Your task to perform on an android device: turn on the 12-hour format for clock Image 0: 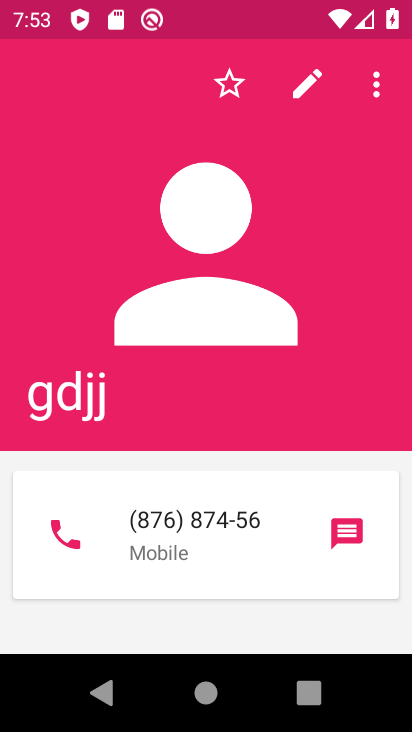
Step 0: press home button
Your task to perform on an android device: turn on the 12-hour format for clock Image 1: 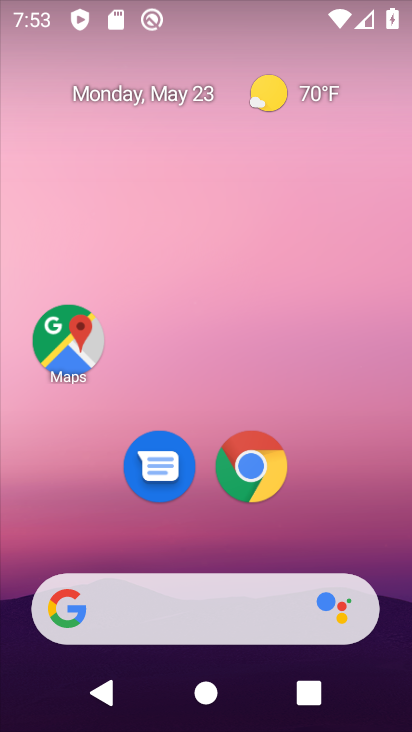
Step 1: drag from (156, 570) to (154, 23)
Your task to perform on an android device: turn on the 12-hour format for clock Image 2: 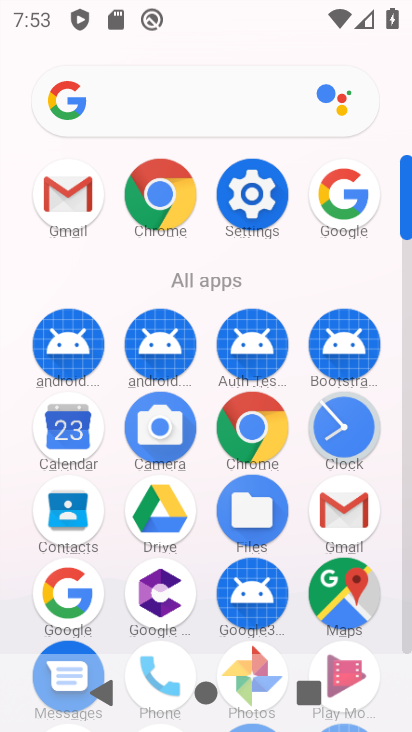
Step 2: click (353, 430)
Your task to perform on an android device: turn on the 12-hour format for clock Image 3: 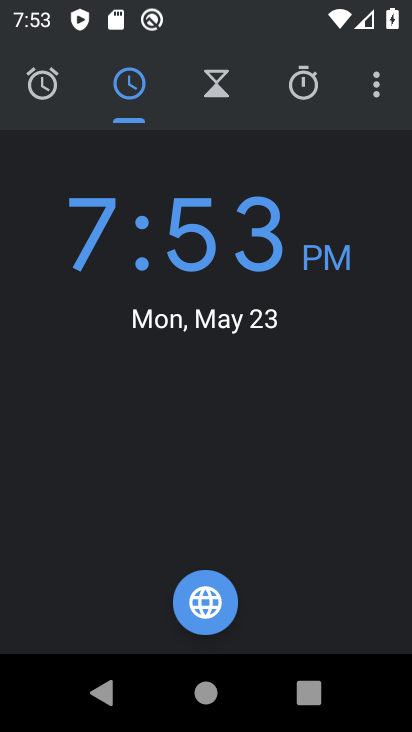
Step 3: click (378, 107)
Your task to perform on an android device: turn on the 12-hour format for clock Image 4: 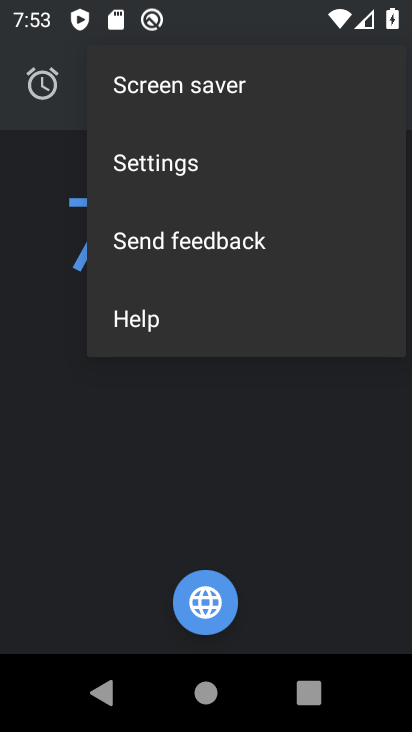
Step 4: click (209, 166)
Your task to perform on an android device: turn on the 12-hour format for clock Image 5: 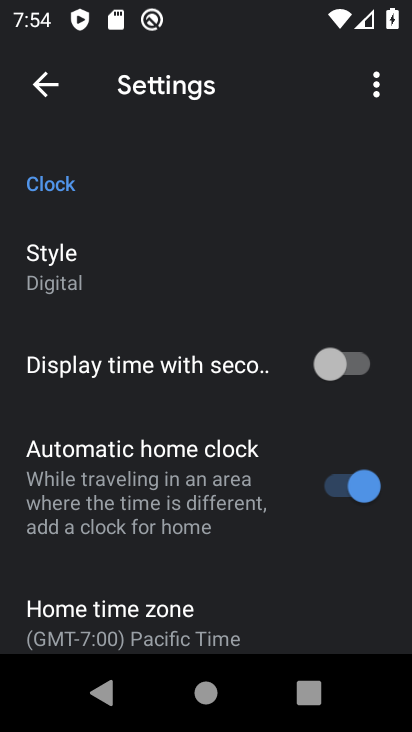
Step 5: drag from (173, 548) to (168, 230)
Your task to perform on an android device: turn on the 12-hour format for clock Image 6: 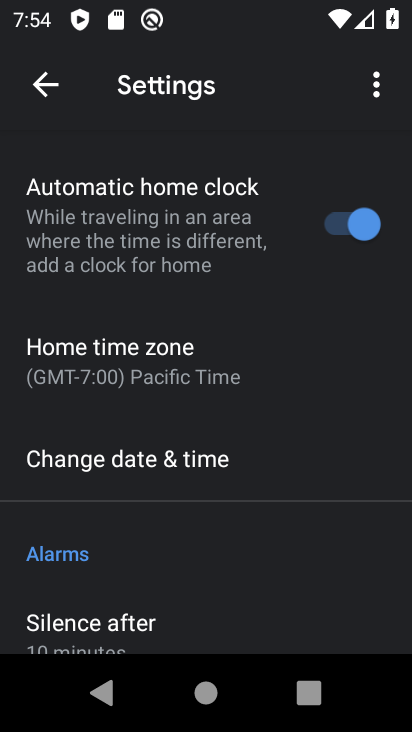
Step 6: click (172, 456)
Your task to perform on an android device: turn on the 12-hour format for clock Image 7: 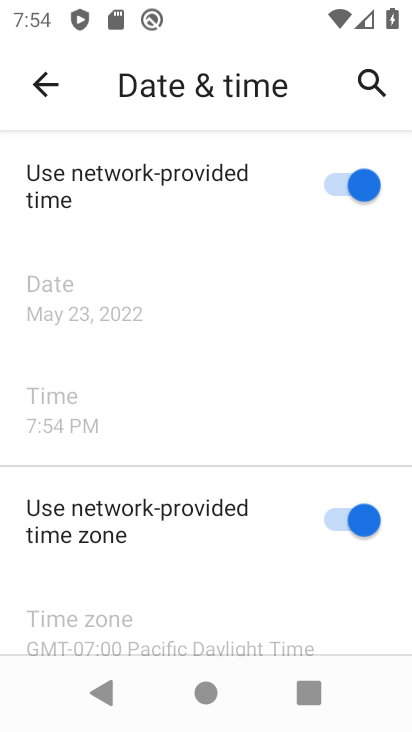
Step 7: task complete